Your task to perform on an android device: delete location history Image 0: 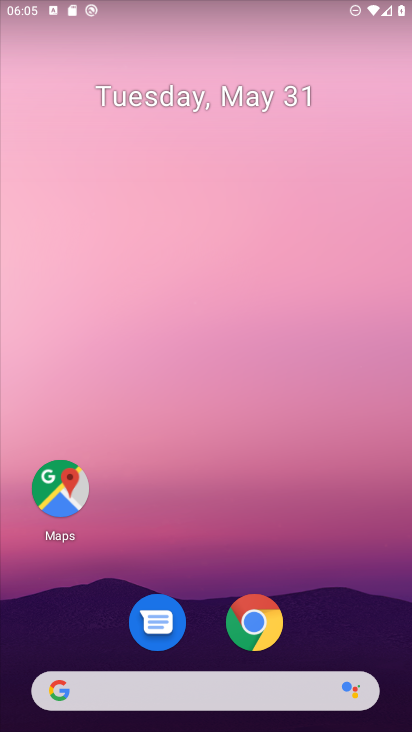
Step 0: drag from (298, 703) to (289, 11)
Your task to perform on an android device: delete location history Image 1: 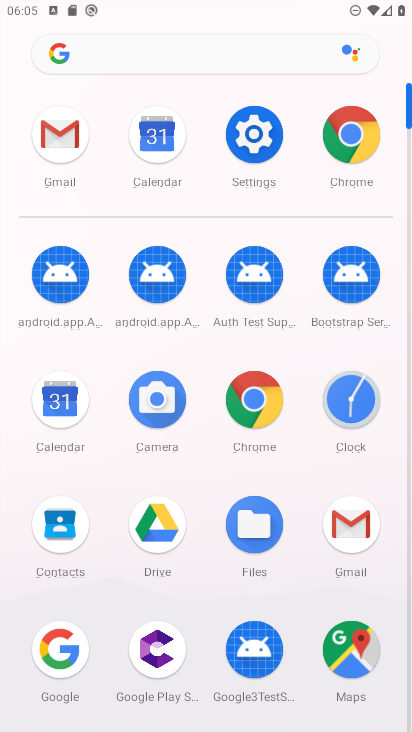
Step 1: click (335, 649)
Your task to perform on an android device: delete location history Image 2: 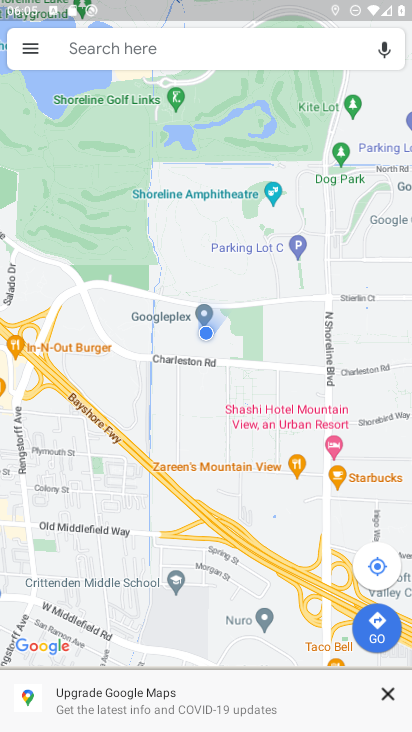
Step 2: click (17, 55)
Your task to perform on an android device: delete location history Image 3: 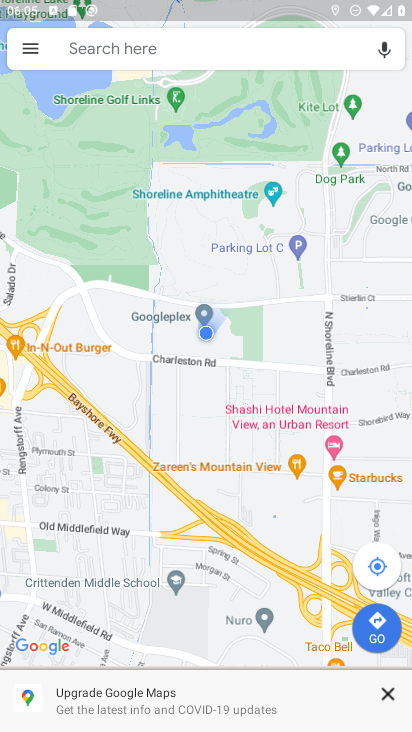
Step 3: click (25, 46)
Your task to perform on an android device: delete location history Image 4: 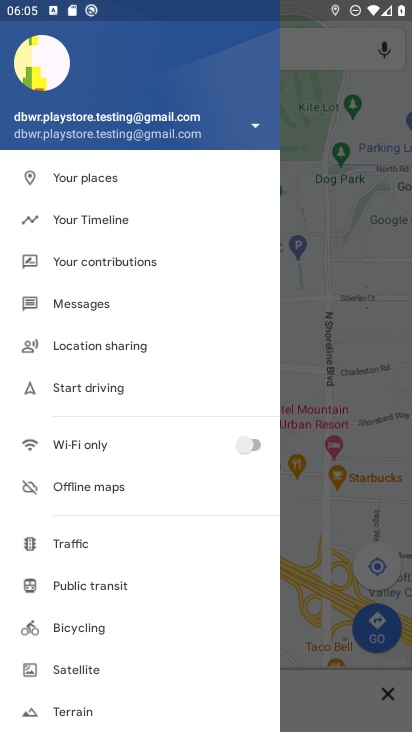
Step 4: click (111, 216)
Your task to perform on an android device: delete location history Image 5: 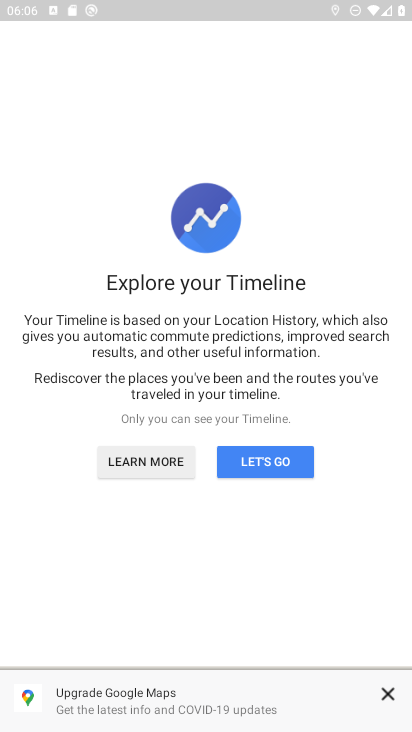
Step 5: click (393, 694)
Your task to perform on an android device: delete location history Image 6: 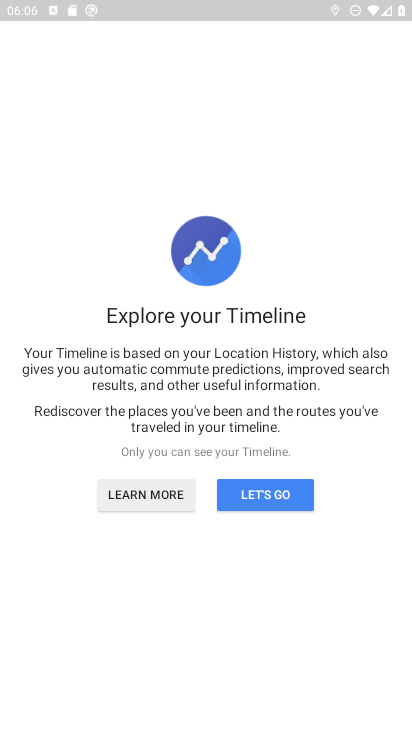
Step 6: click (260, 461)
Your task to perform on an android device: delete location history Image 7: 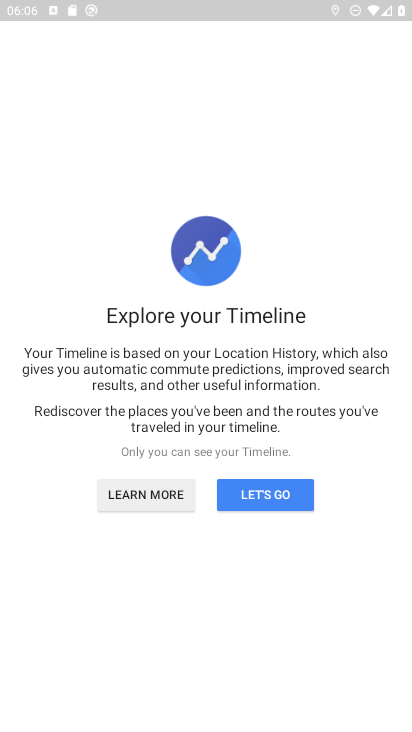
Step 7: click (283, 498)
Your task to perform on an android device: delete location history Image 8: 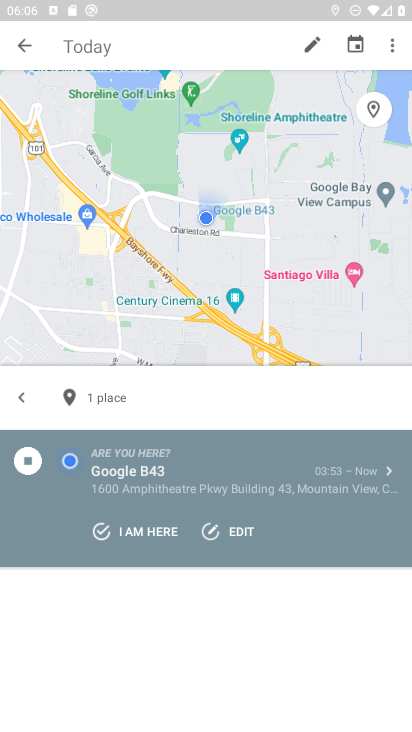
Step 8: click (387, 56)
Your task to perform on an android device: delete location history Image 9: 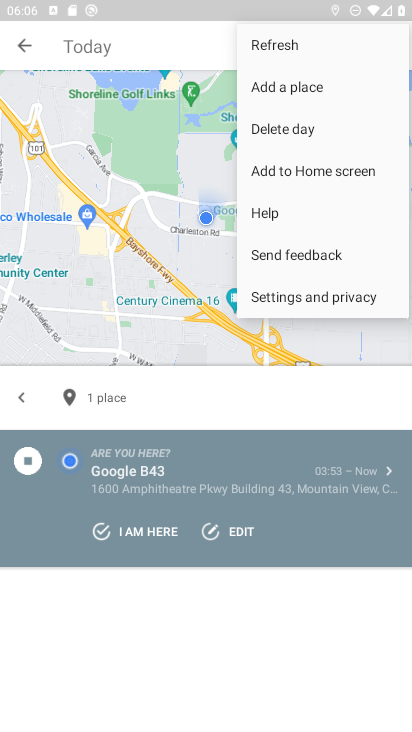
Step 9: click (283, 293)
Your task to perform on an android device: delete location history Image 10: 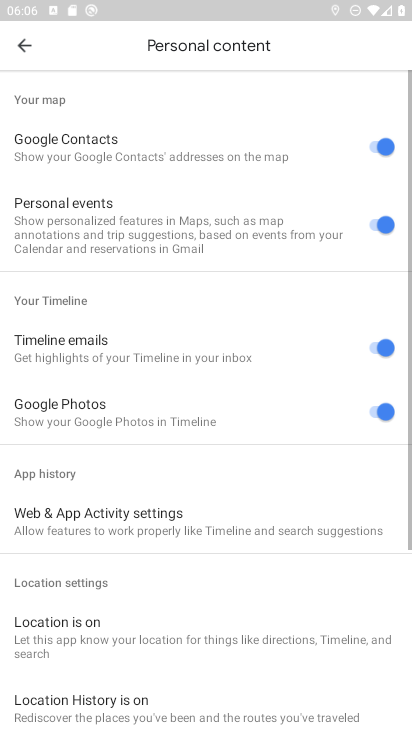
Step 10: drag from (229, 655) to (287, 196)
Your task to perform on an android device: delete location history Image 11: 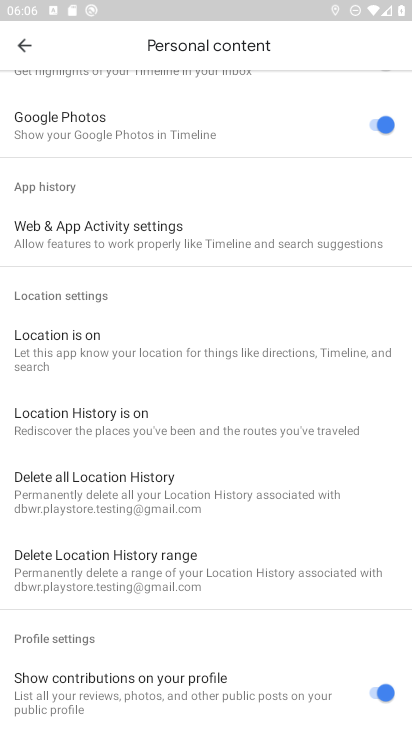
Step 11: click (151, 485)
Your task to perform on an android device: delete location history Image 12: 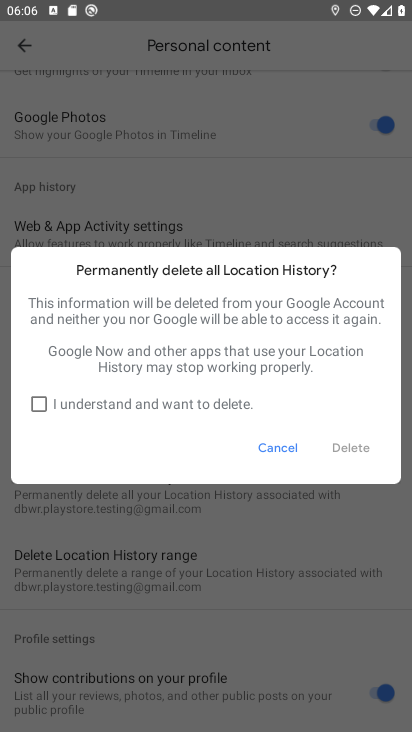
Step 12: click (43, 407)
Your task to perform on an android device: delete location history Image 13: 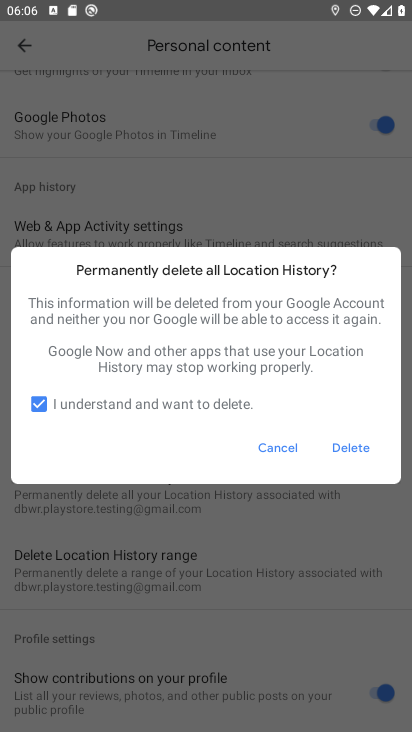
Step 13: click (334, 454)
Your task to perform on an android device: delete location history Image 14: 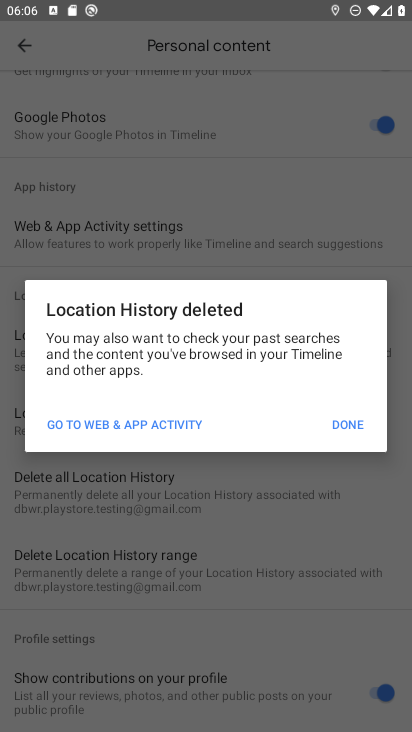
Step 14: click (354, 420)
Your task to perform on an android device: delete location history Image 15: 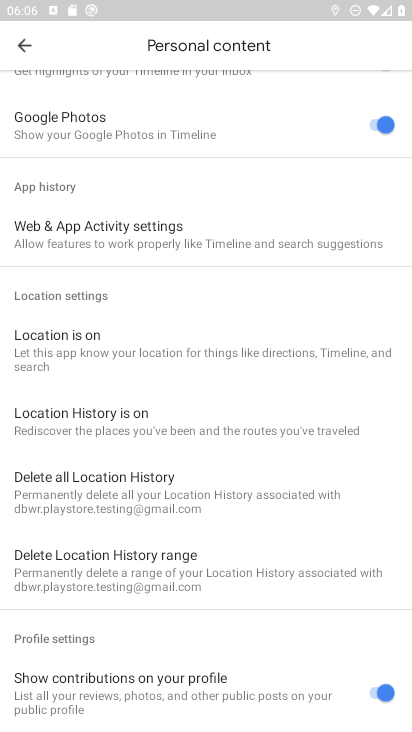
Step 15: task complete